Your task to perform on an android device: turn pop-ups on in chrome Image 0: 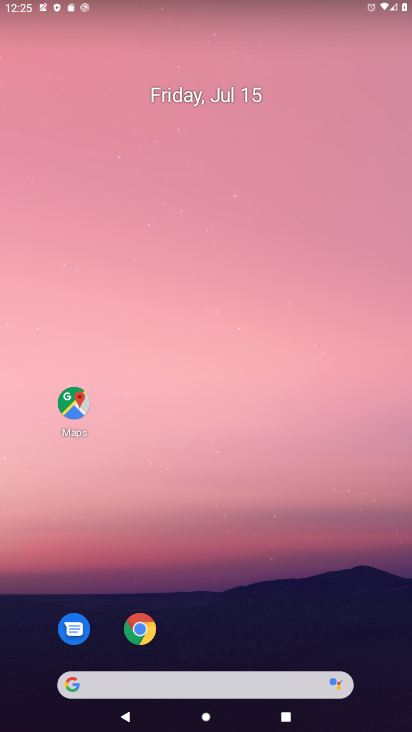
Step 0: press home button
Your task to perform on an android device: turn pop-ups on in chrome Image 1: 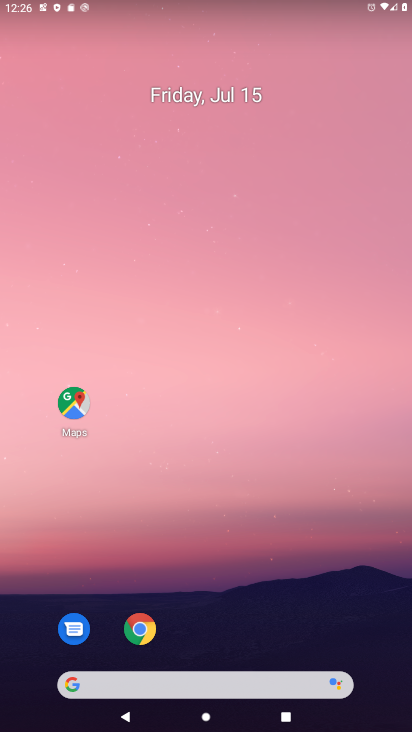
Step 1: drag from (261, 645) to (269, 155)
Your task to perform on an android device: turn pop-ups on in chrome Image 2: 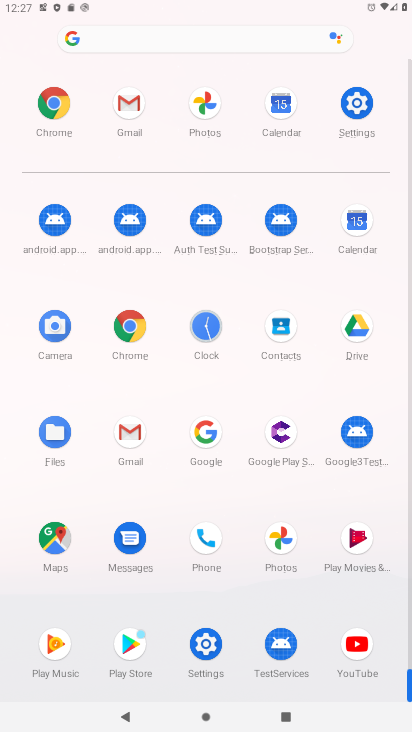
Step 2: click (41, 109)
Your task to perform on an android device: turn pop-ups on in chrome Image 3: 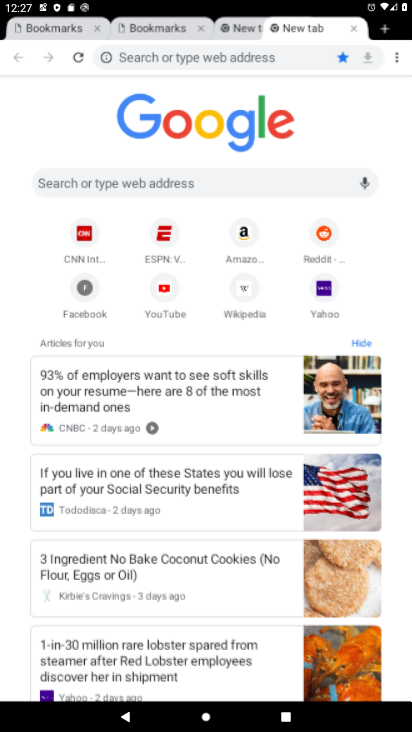
Step 3: drag from (398, 54) to (284, 268)
Your task to perform on an android device: turn pop-ups on in chrome Image 4: 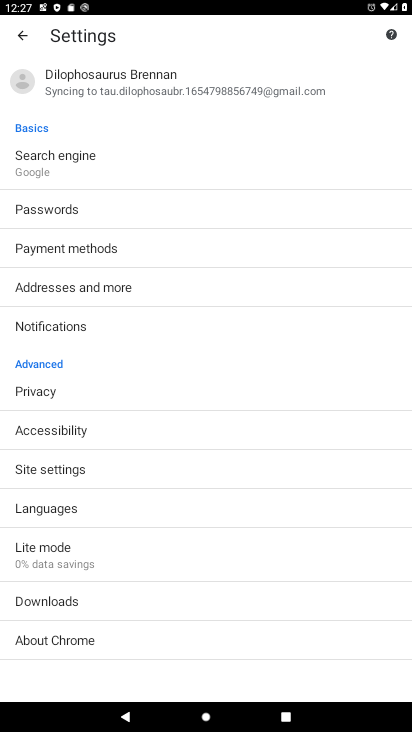
Step 4: click (54, 475)
Your task to perform on an android device: turn pop-ups on in chrome Image 5: 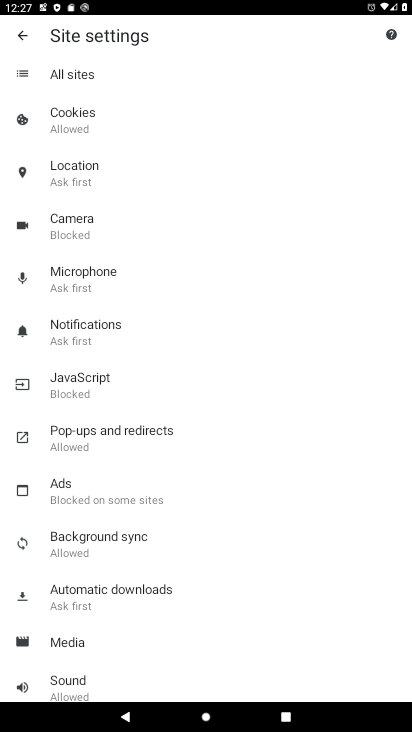
Step 5: click (90, 438)
Your task to perform on an android device: turn pop-ups on in chrome Image 6: 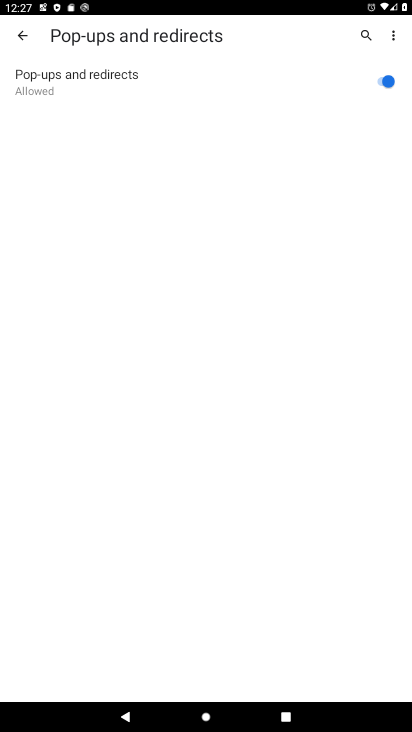
Step 6: task complete